Your task to perform on an android device: change the upload size in google photos Image 0: 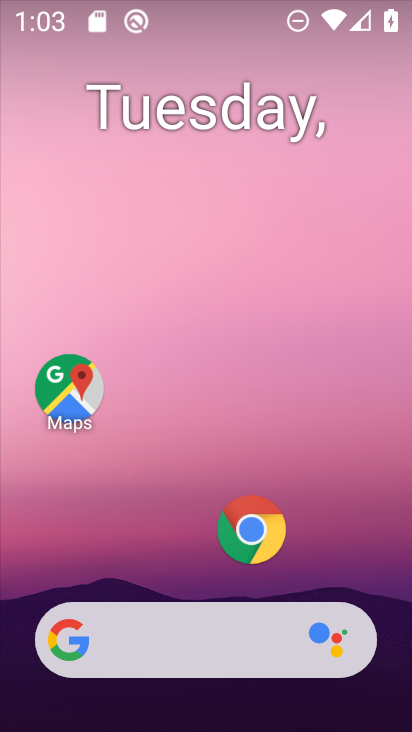
Step 0: drag from (163, 695) to (225, 266)
Your task to perform on an android device: change the upload size in google photos Image 1: 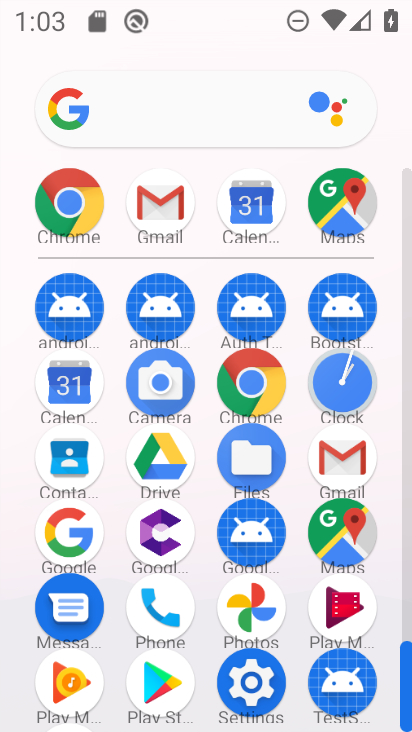
Step 1: click (248, 619)
Your task to perform on an android device: change the upload size in google photos Image 2: 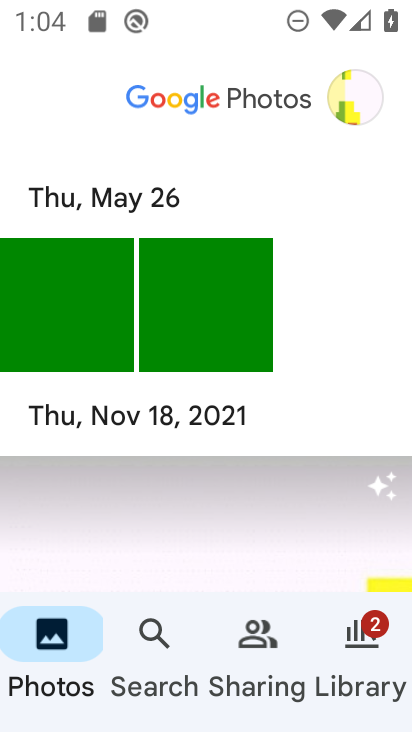
Step 2: click (355, 80)
Your task to perform on an android device: change the upload size in google photos Image 3: 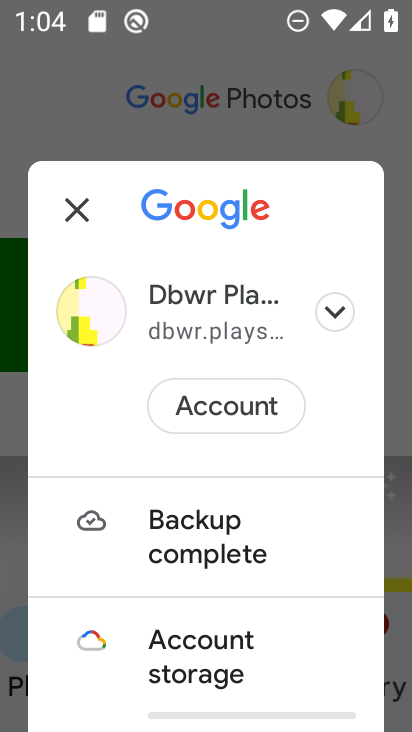
Step 3: drag from (190, 611) to (279, 140)
Your task to perform on an android device: change the upload size in google photos Image 4: 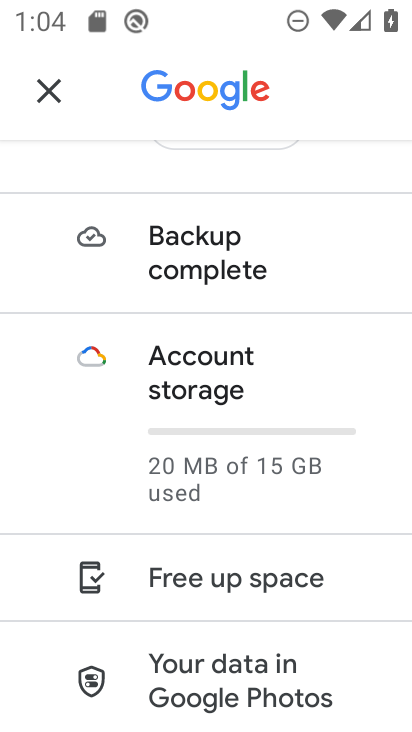
Step 4: drag from (170, 506) to (179, 340)
Your task to perform on an android device: change the upload size in google photos Image 5: 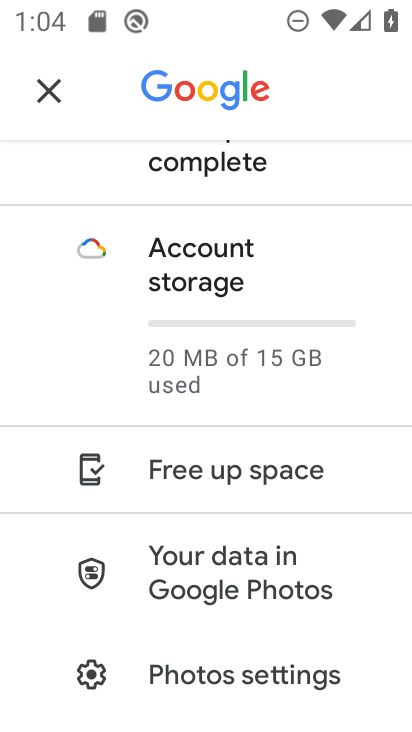
Step 5: click (164, 670)
Your task to perform on an android device: change the upload size in google photos Image 6: 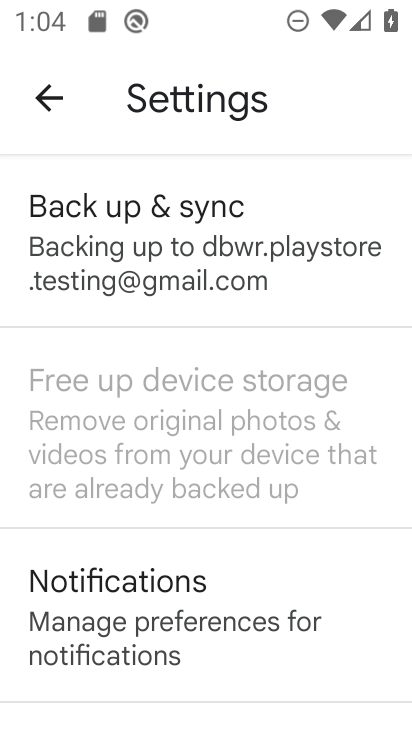
Step 6: click (201, 260)
Your task to perform on an android device: change the upload size in google photos Image 7: 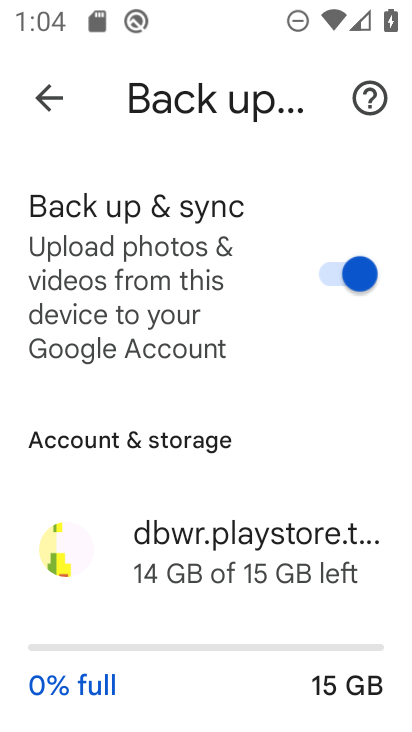
Step 7: drag from (173, 578) to (298, 36)
Your task to perform on an android device: change the upload size in google photos Image 8: 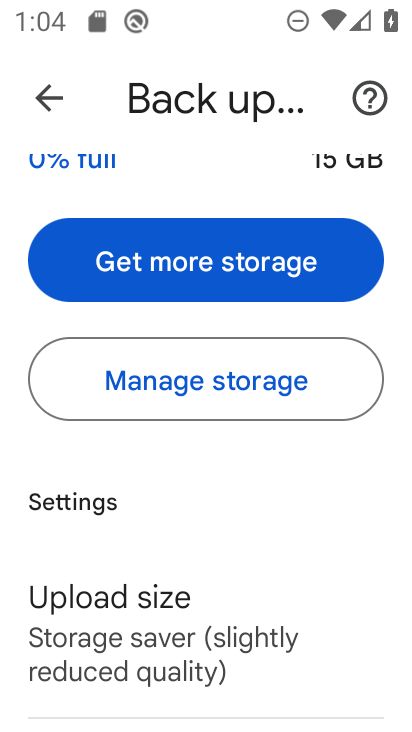
Step 8: click (132, 637)
Your task to perform on an android device: change the upload size in google photos Image 9: 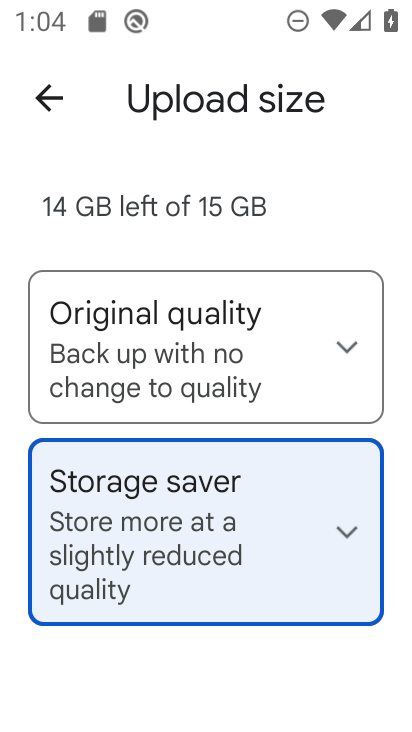
Step 9: task complete